Your task to perform on an android device: Go to display settings Image 0: 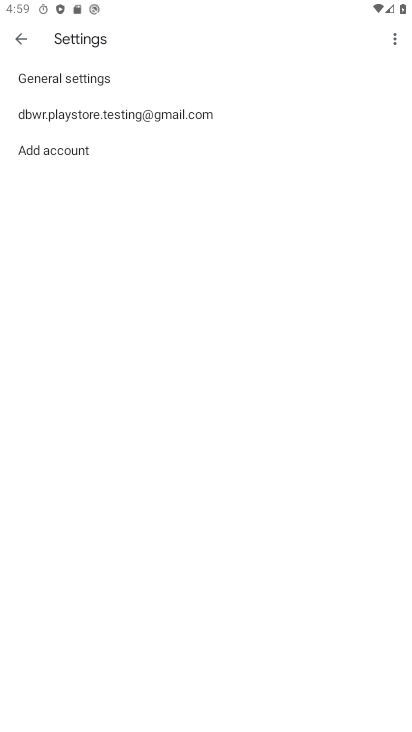
Step 0: press home button
Your task to perform on an android device: Go to display settings Image 1: 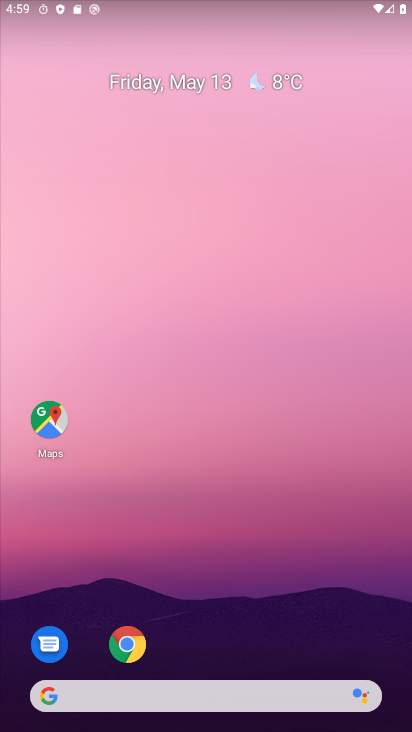
Step 1: drag from (223, 629) to (256, 204)
Your task to perform on an android device: Go to display settings Image 2: 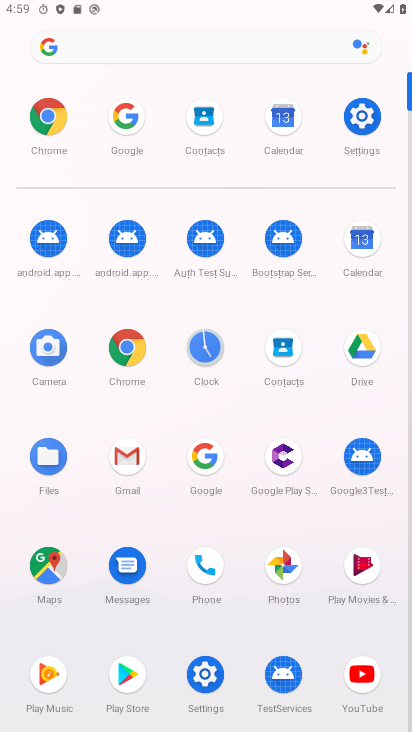
Step 2: click (348, 121)
Your task to perform on an android device: Go to display settings Image 3: 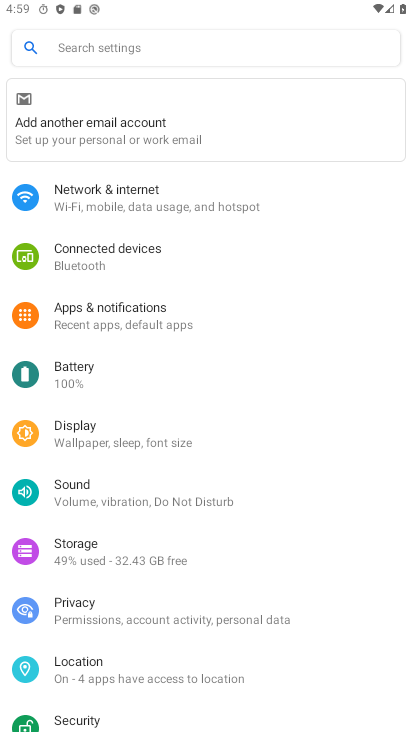
Step 3: drag from (168, 669) to (199, 386)
Your task to perform on an android device: Go to display settings Image 4: 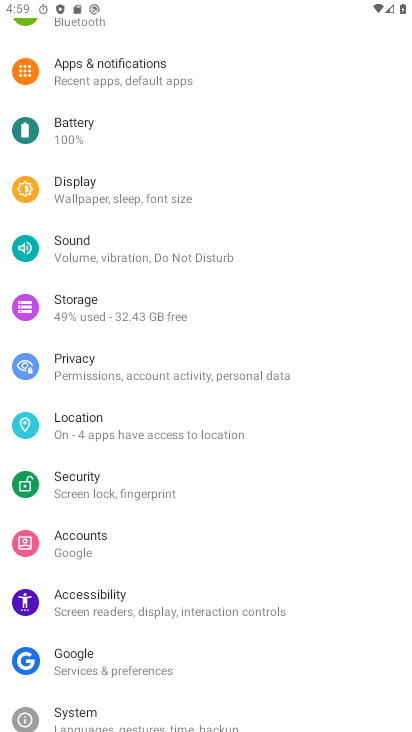
Step 4: click (118, 193)
Your task to perform on an android device: Go to display settings Image 5: 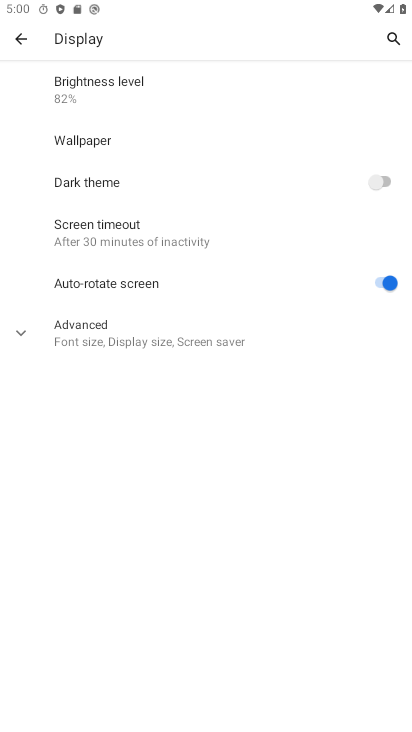
Step 5: task complete